Your task to perform on an android device: open app "VLC for Android" (install if not already installed) and enter user name: "Yves@outlook.com" and password: "internally" Image 0: 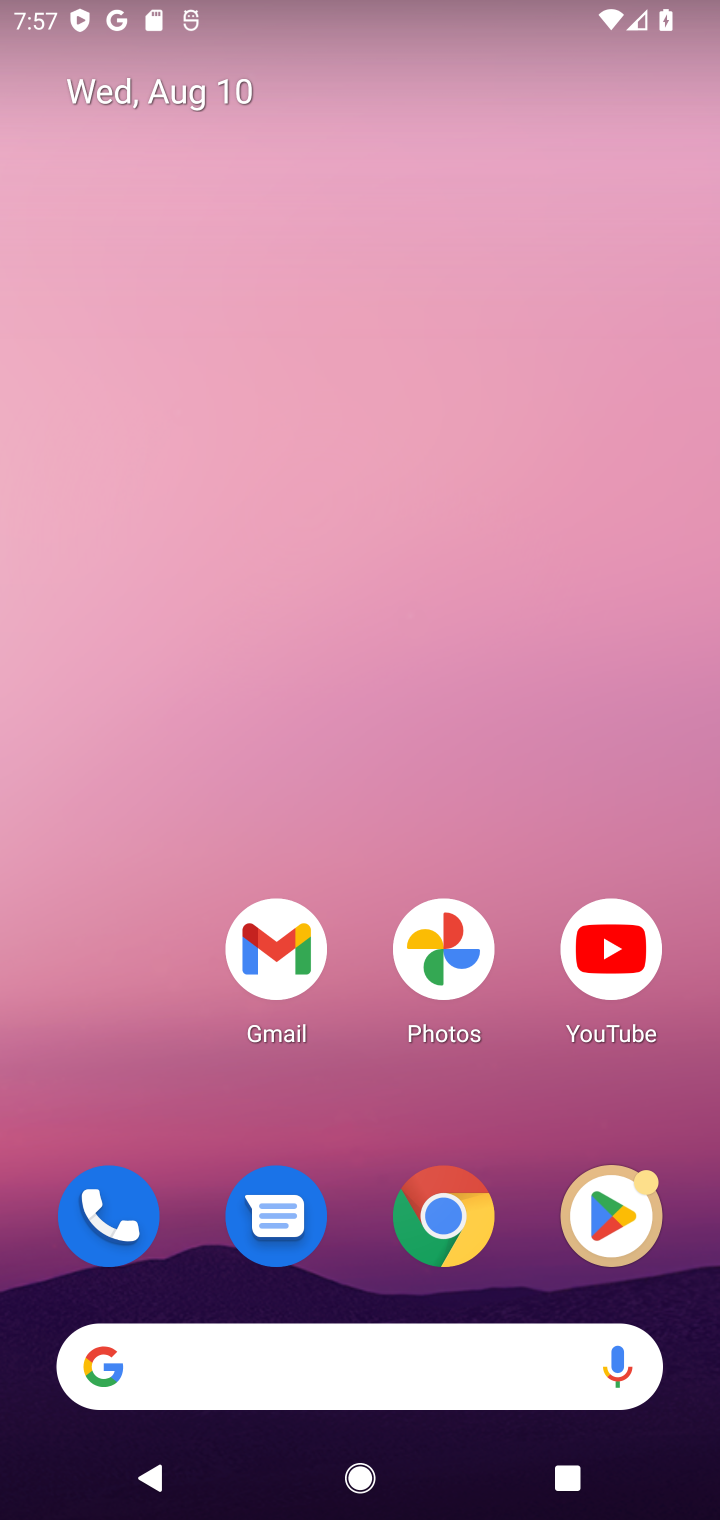
Step 0: click (598, 1182)
Your task to perform on an android device: open app "VLC for Android" (install if not already installed) and enter user name: "Yves@outlook.com" and password: "internally" Image 1: 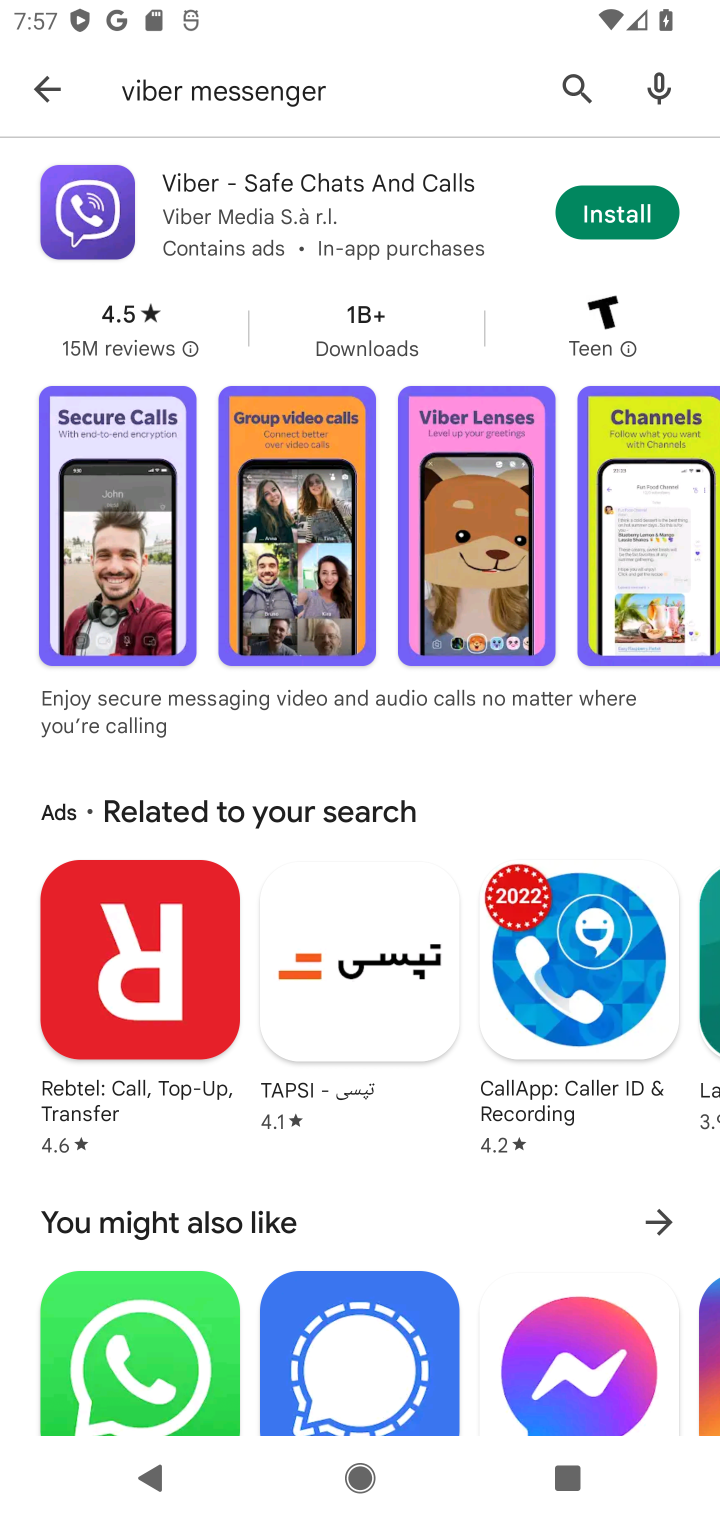
Step 1: click (577, 69)
Your task to perform on an android device: open app "VLC for Android" (install if not already installed) and enter user name: "Yves@outlook.com" and password: "internally" Image 2: 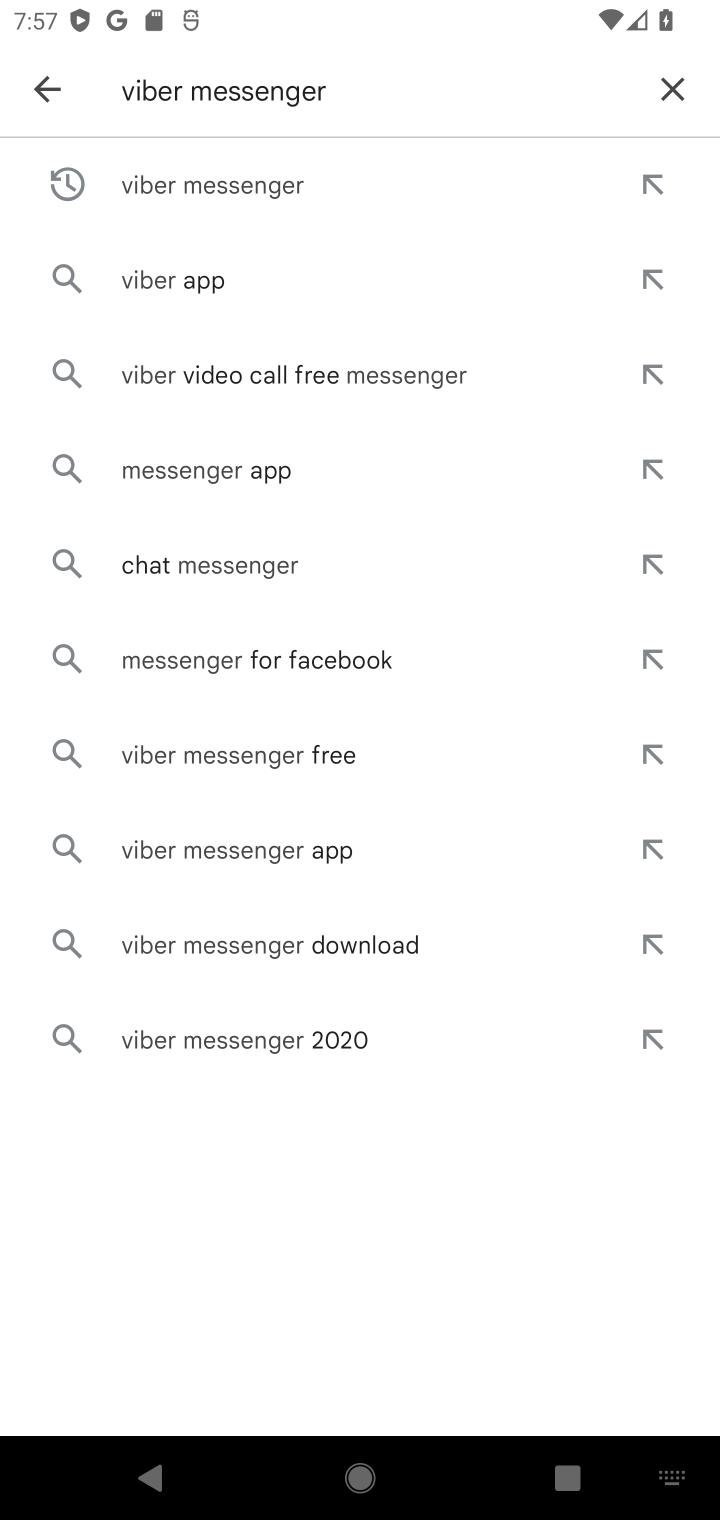
Step 2: click (673, 71)
Your task to perform on an android device: open app "VLC for Android" (install if not already installed) and enter user name: "Yves@outlook.com" and password: "internally" Image 3: 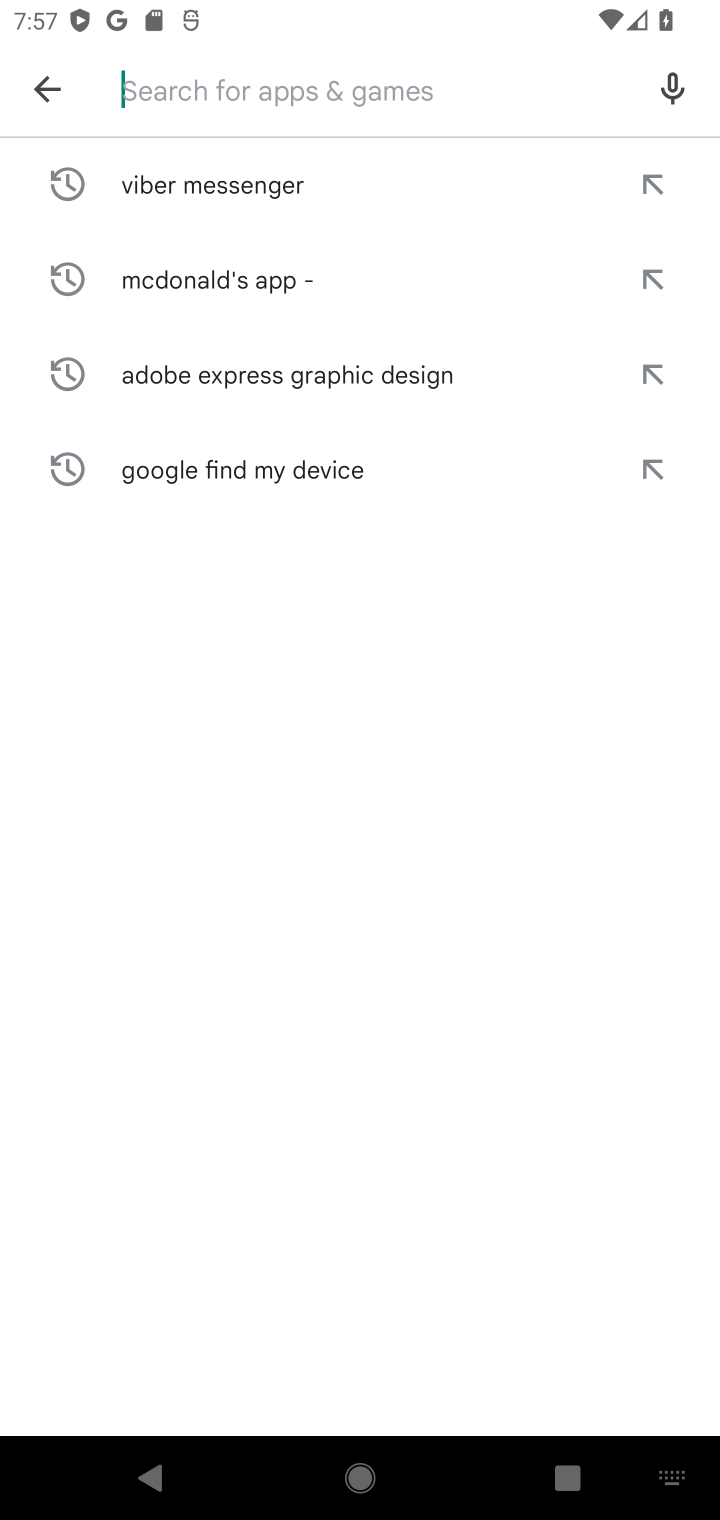
Step 3: click (297, 73)
Your task to perform on an android device: open app "VLC for Android" (install if not already installed) and enter user name: "Yves@outlook.com" and password: "internally" Image 4: 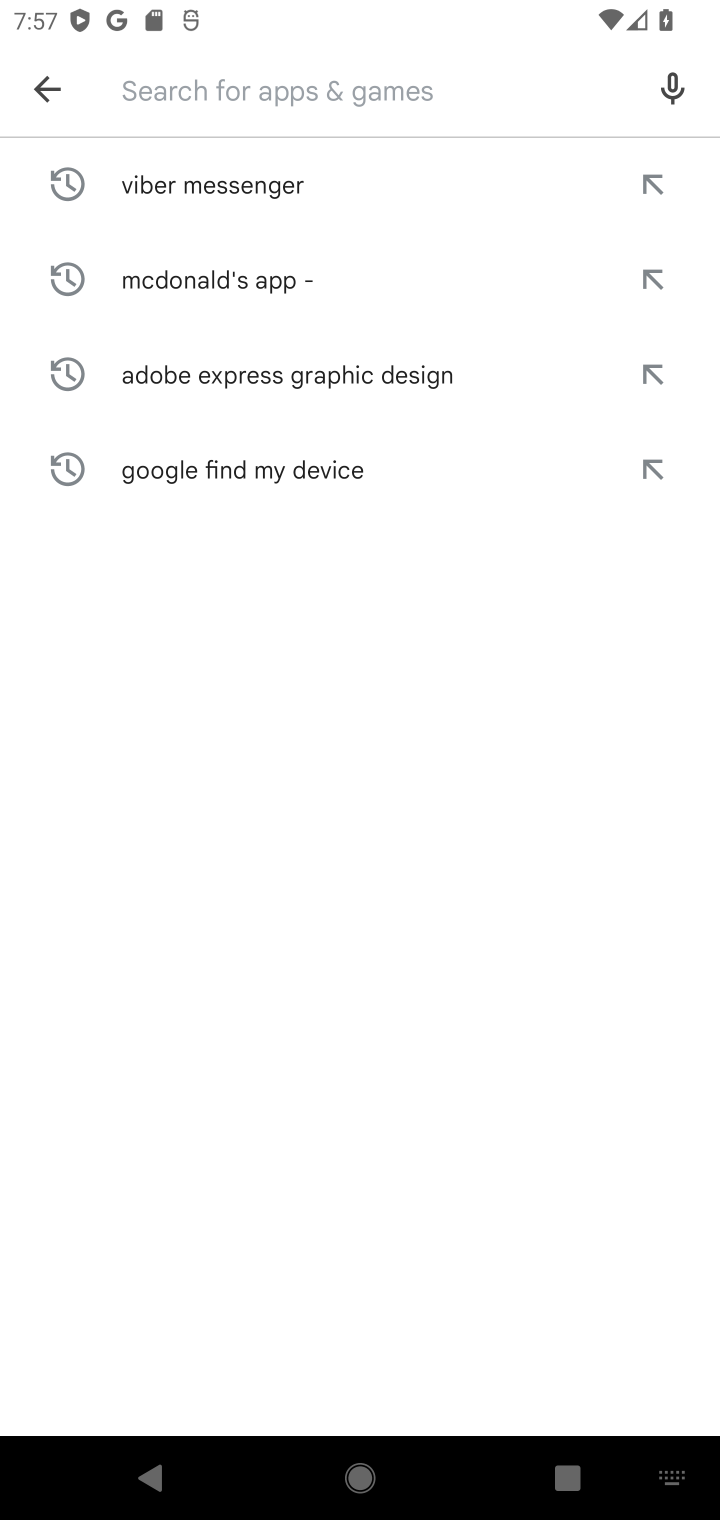
Step 4: type "vlc"
Your task to perform on an android device: open app "VLC for Android" (install if not already installed) and enter user name: "Yves@outlook.com" and password: "internally" Image 5: 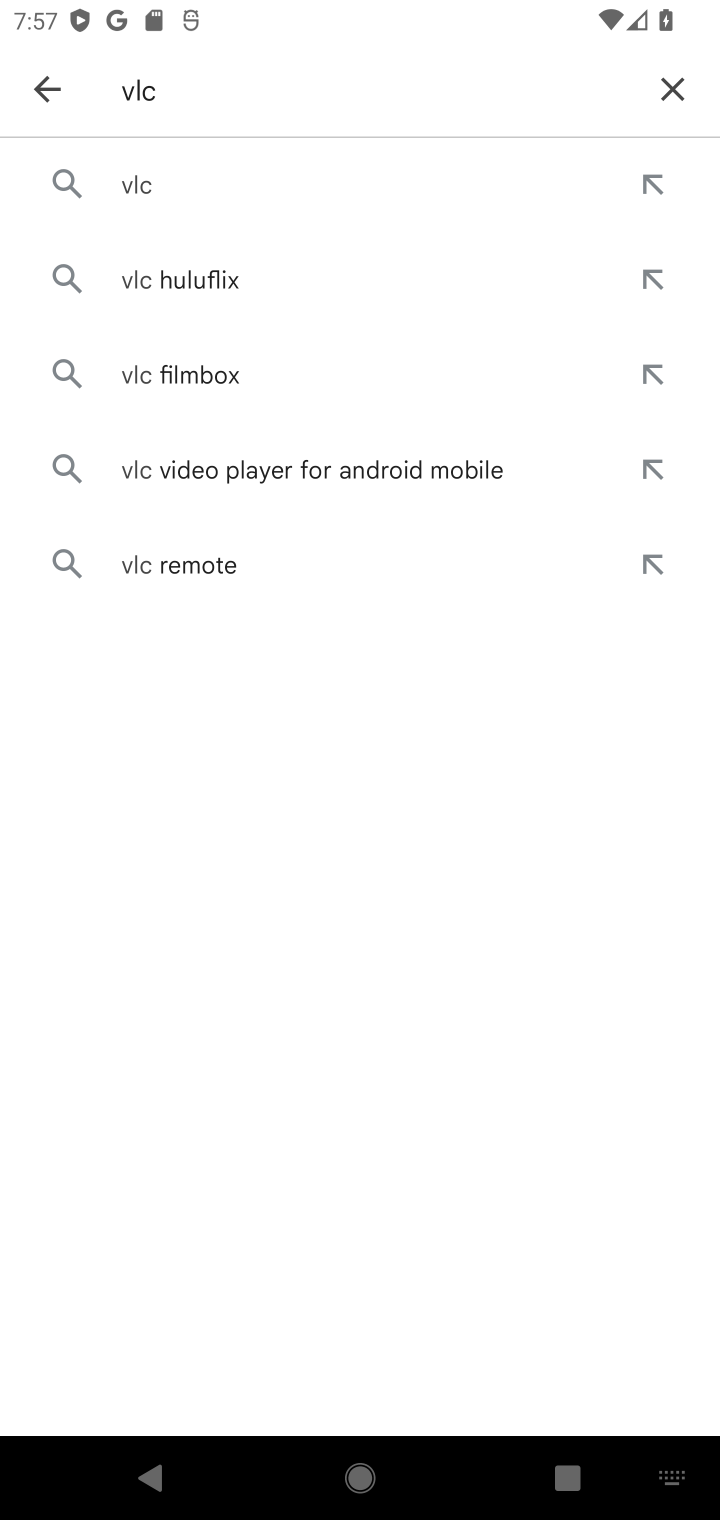
Step 5: click (169, 187)
Your task to perform on an android device: open app "VLC for Android" (install if not already installed) and enter user name: "Yves@outlook.com" and password: "internally" Image 6: 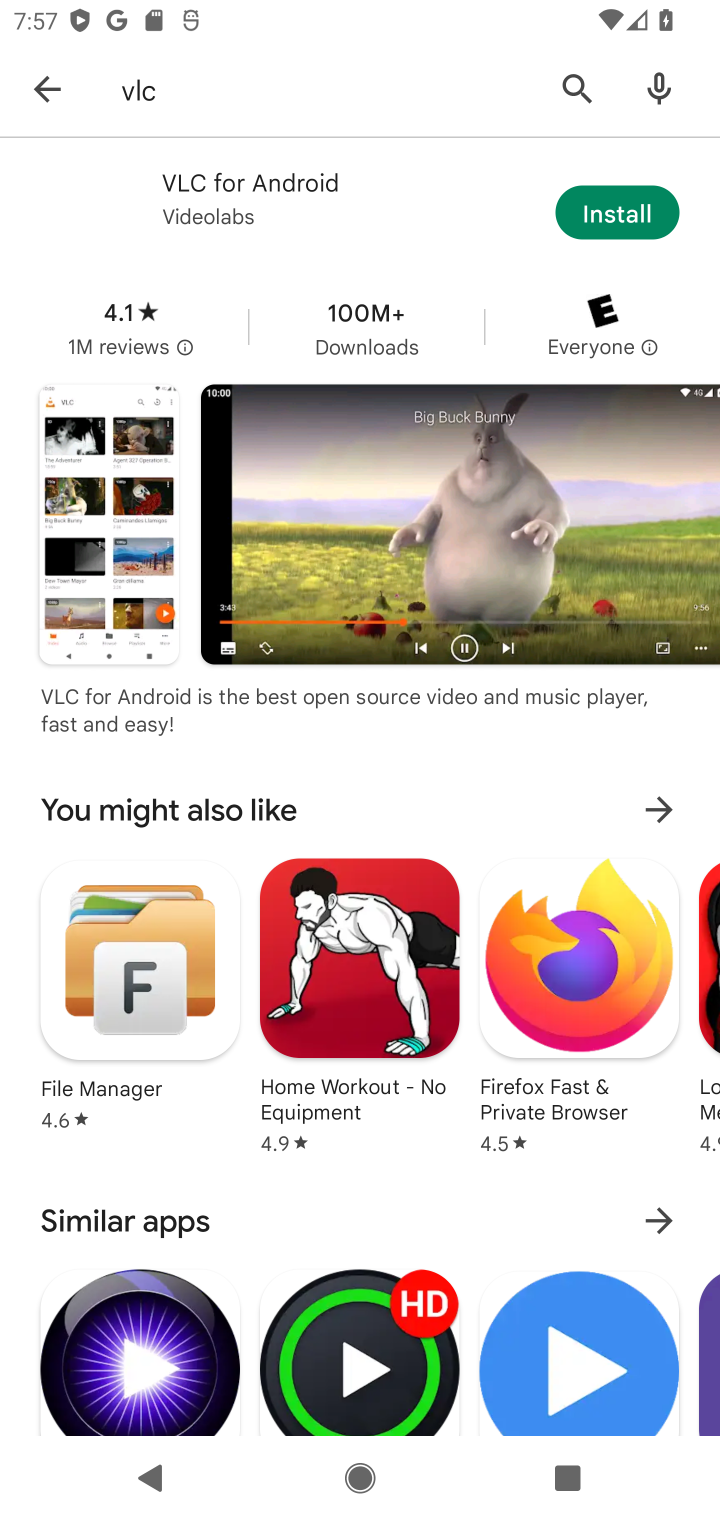
Step 6: click (608, 214)
Your task to perform on an android device: open app "VLC for Android" (install if not already installed) and enter user name: "Yves@outlook.com" and password: "internally" Image 7: 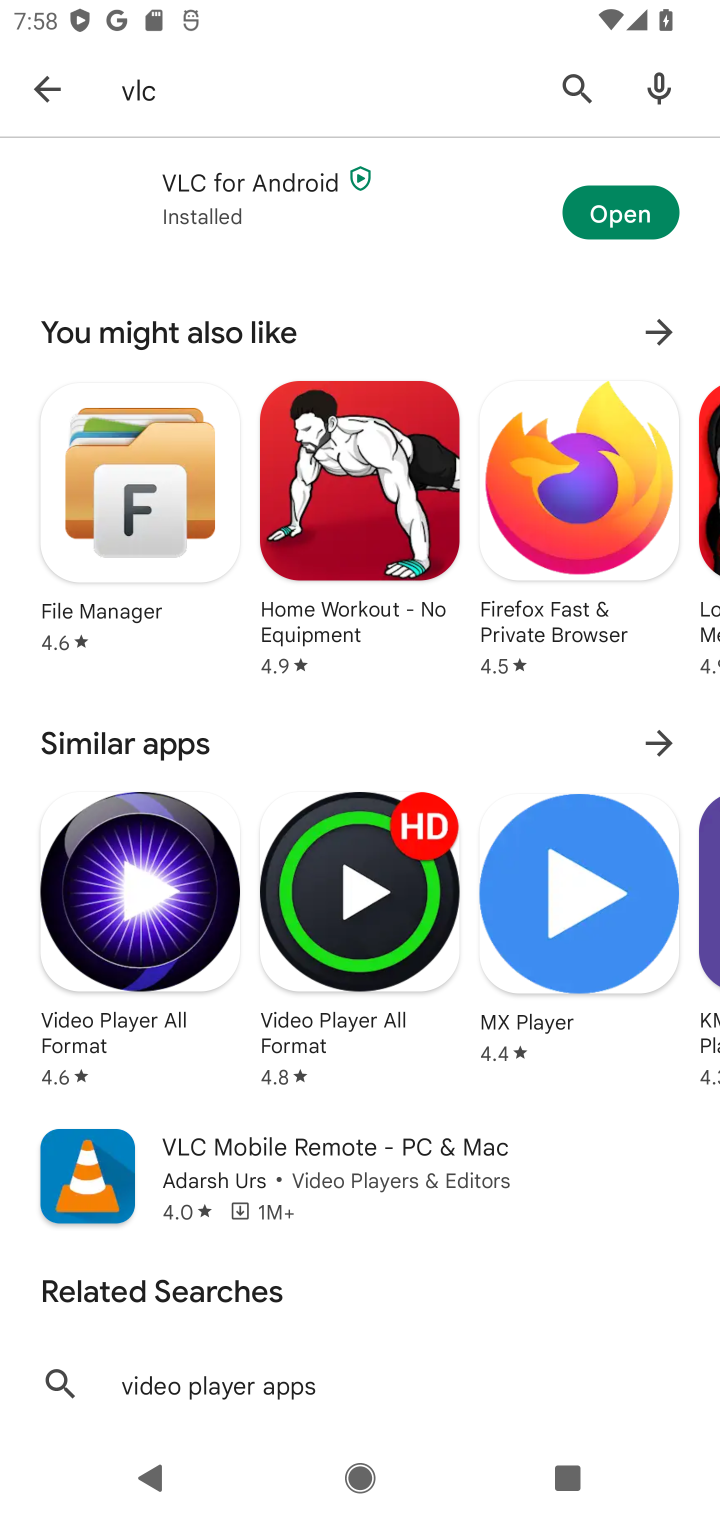
Step 7: click (615, 229)
Your task to perform on an android device: open app "VLC for Android" (install if not already installed) and enter user name: "Yves@outlook.com" and password: "internally" Image 8: 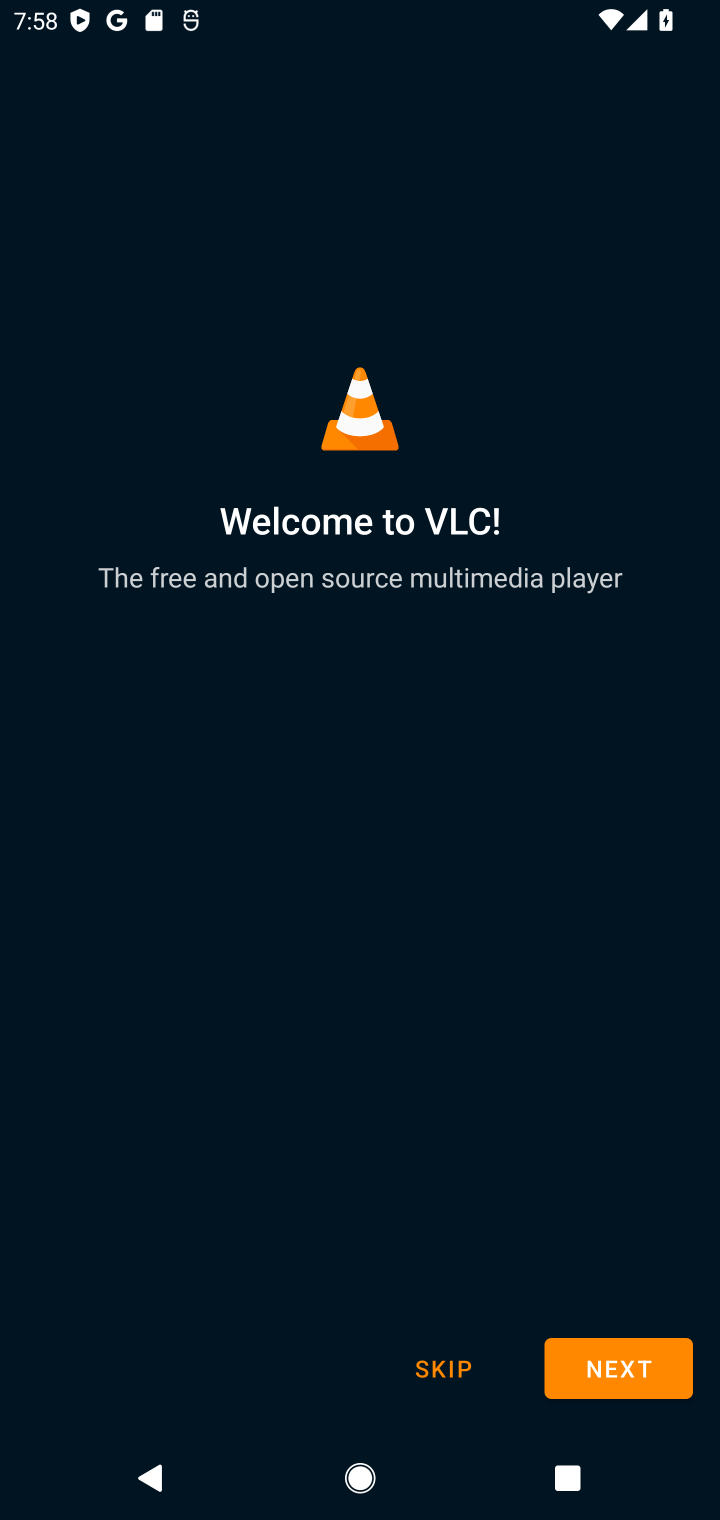
Step 8: click (618, 1381)
Your task to perform on an android device: open app "VLC for Android" (install if not already installed) and enter user name: "Yves@outlook.com" and password: "internally" Image 9: 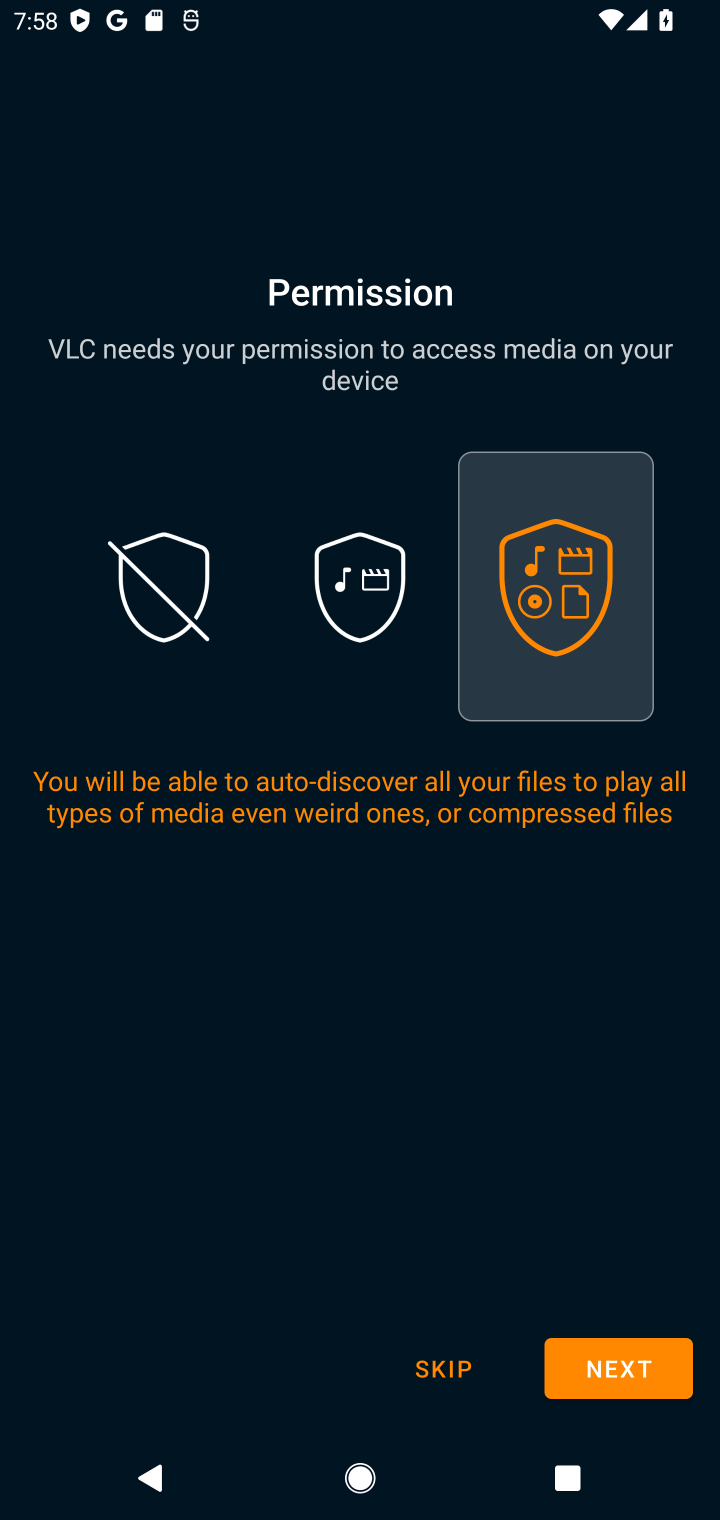
Step 9: click (477, 1367)
Your task to perform on an android device: open app "VLC for Android" (install if not already installed) and enter user name: "Yves@outlook.com" and password: "internally" Image 10: 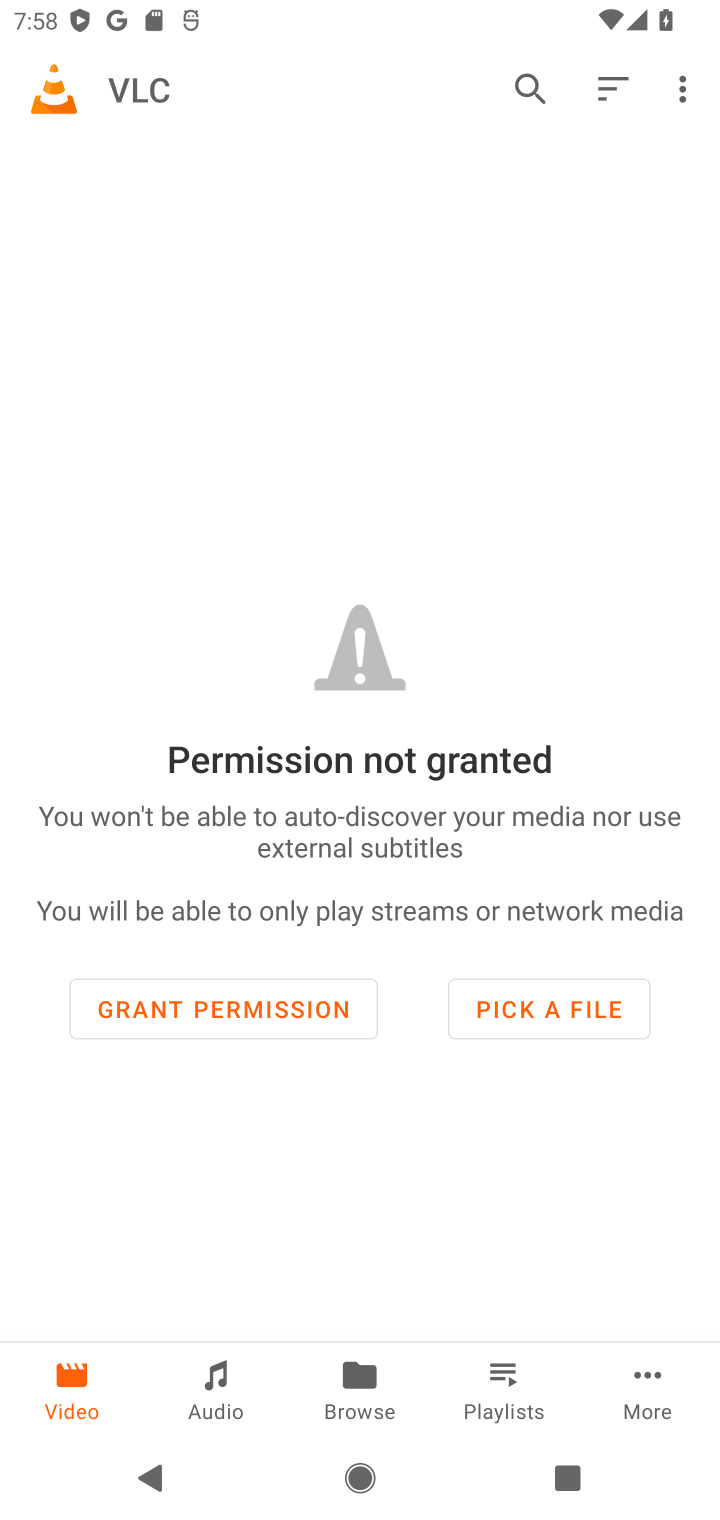
Step 10: click (667, 1375)
Your task to perform on an android device: open app "VLC for Android" (install if not already installed) and enter user name: "Yves@outlook.com" and password: "internally" Image 11: 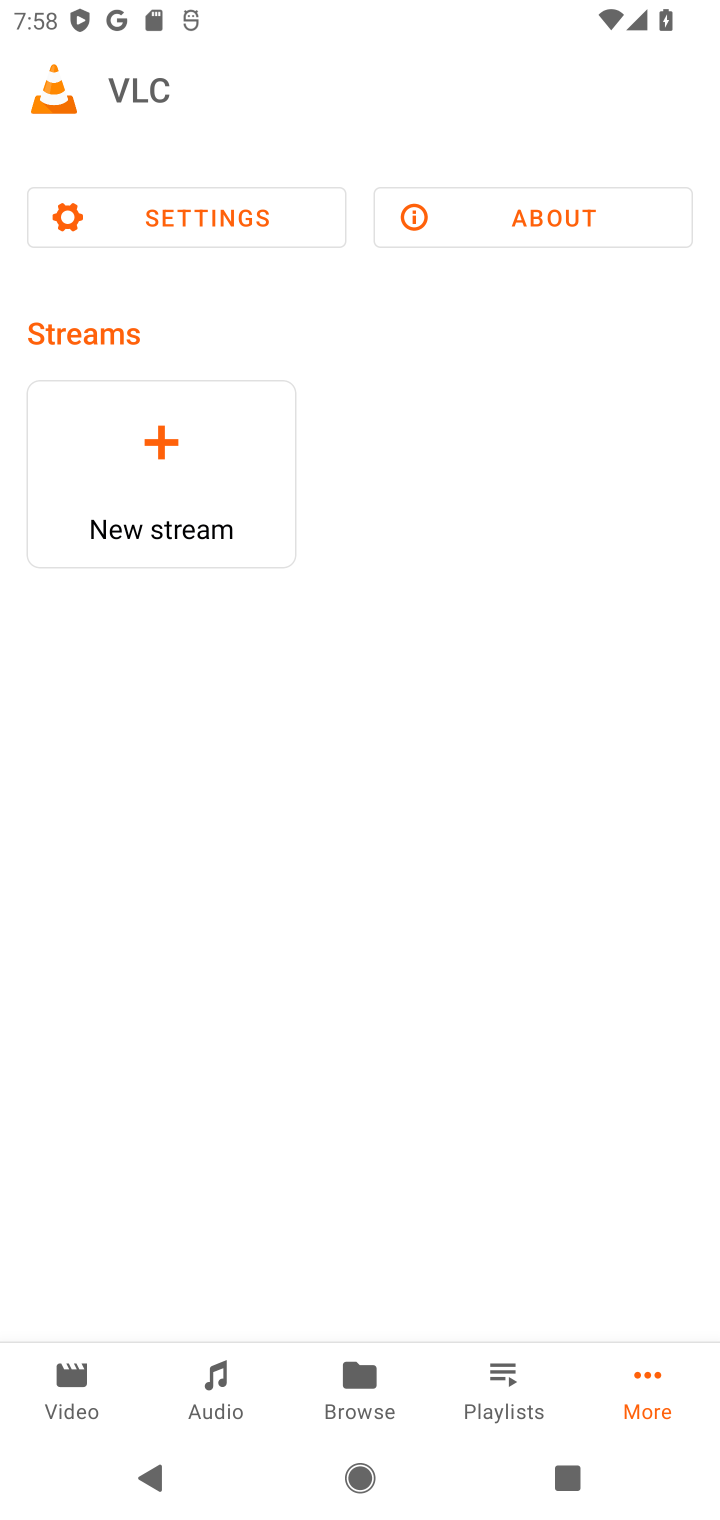
Step 11: click (65, 1384)
Your task to perform on an android device: open app "VLC for Android" (install if not already installed) and enter user name: "Yves@outlook.com" and password: "internally" Image 12: 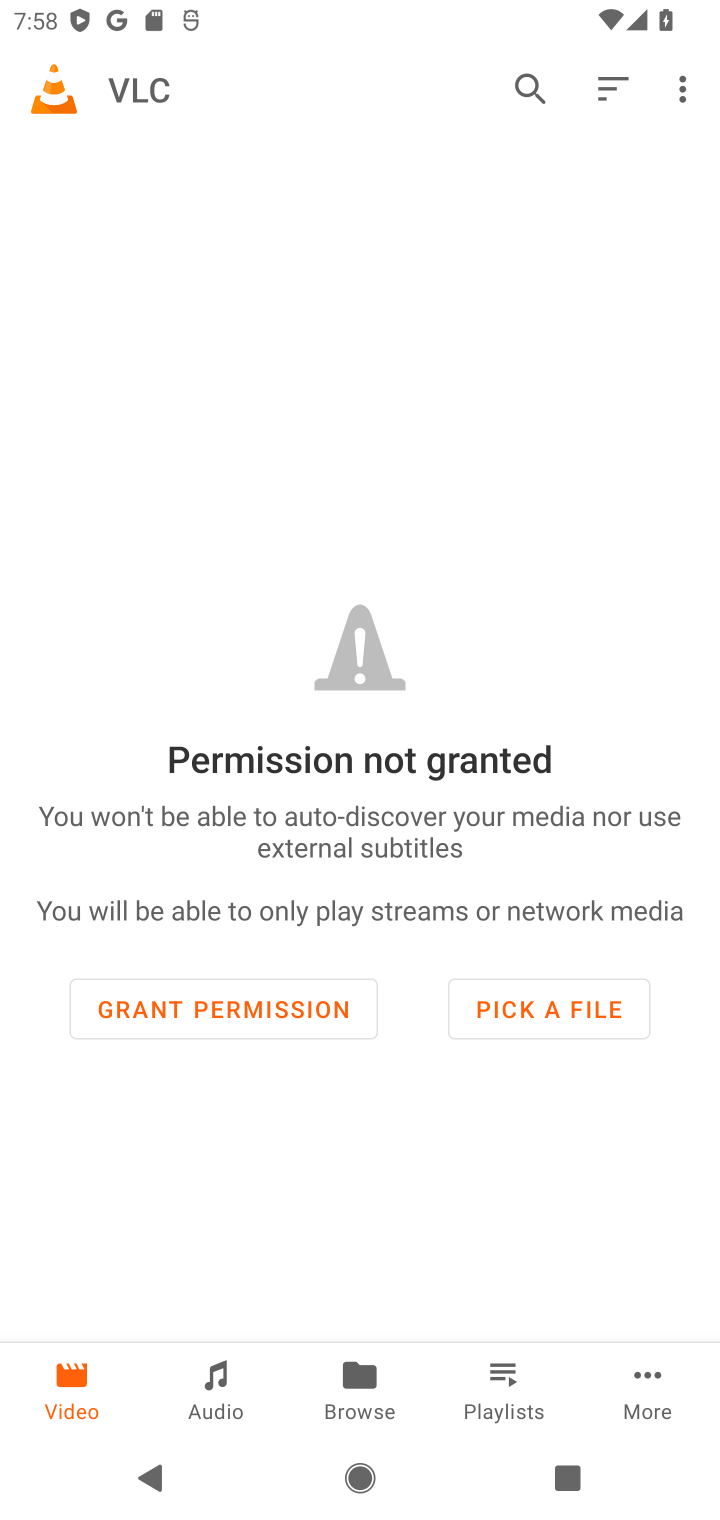
Step 12: click (65, 76)
Your task to perform on an android device: open app "VLC for Android" (install if not already installed) and enter user name: "Yves@outlook.com" and password: "internally" Image 13: 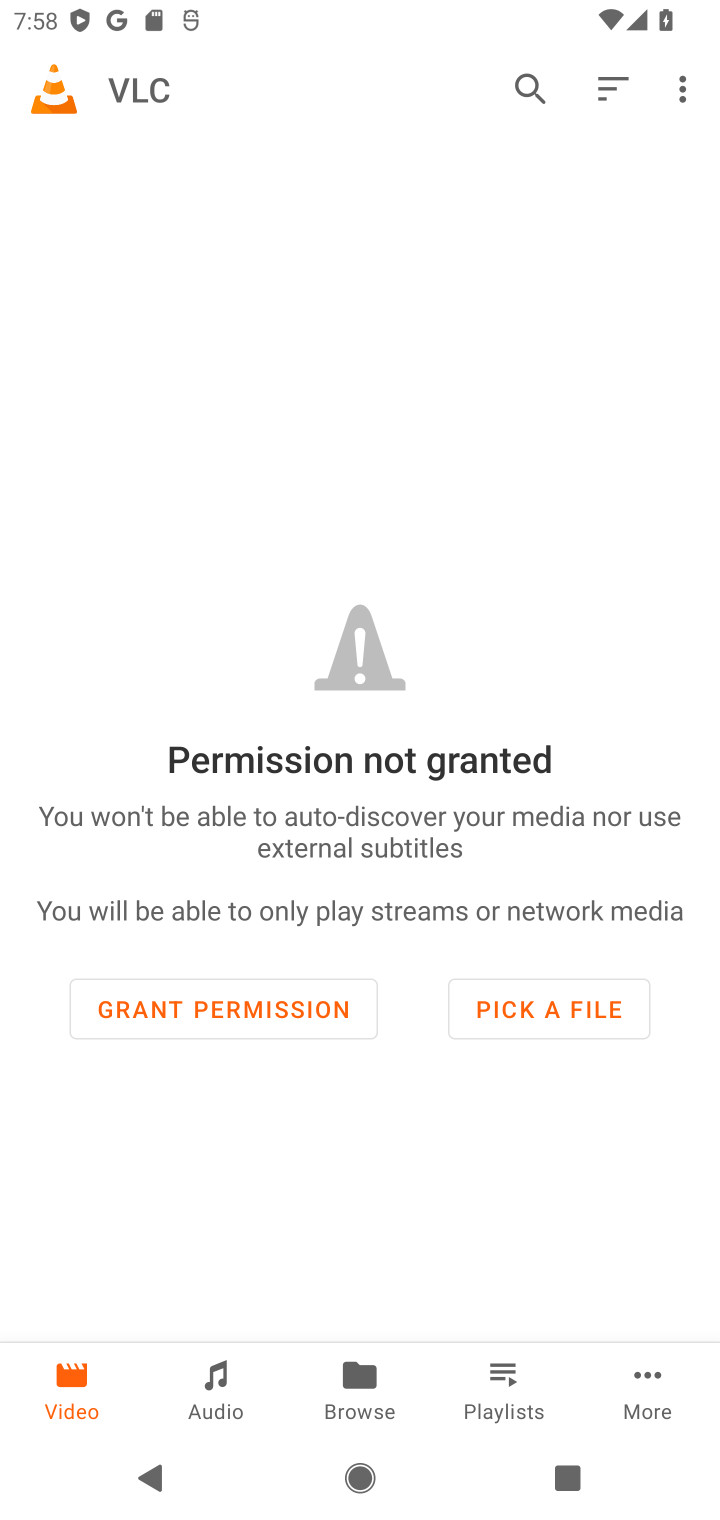
Step 13: click (682, 98)
Your task to perform on an android device: open app "VLC for Android" (install if not already installed) and enter user name: "Yves@outlook.com" and password: "internally" Image 14: 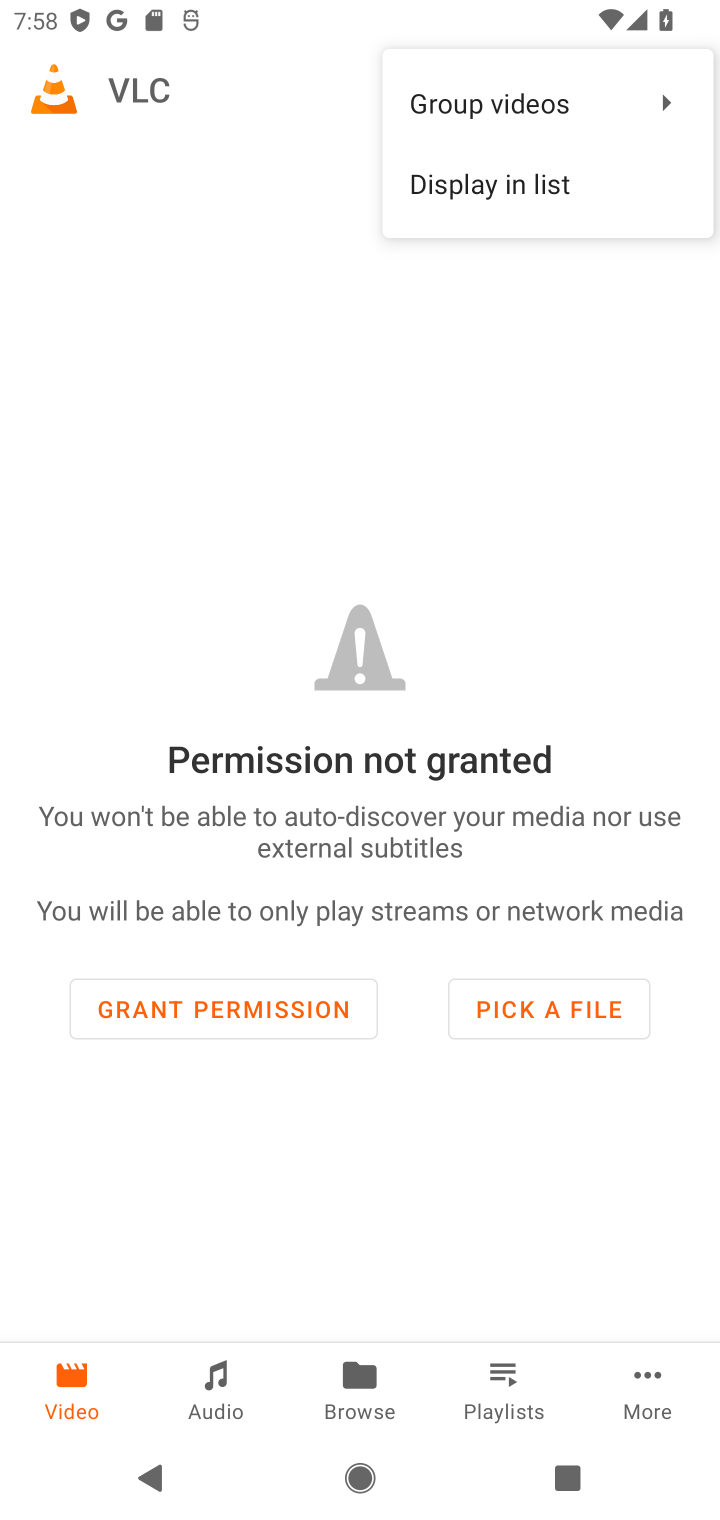
Step 14: click (269, 241)
Your task to perform on an android device: open app "VLC for Android" (install if not already installed) and enter user name: "Yves@outlook.com" and password: "internally" Image 15: 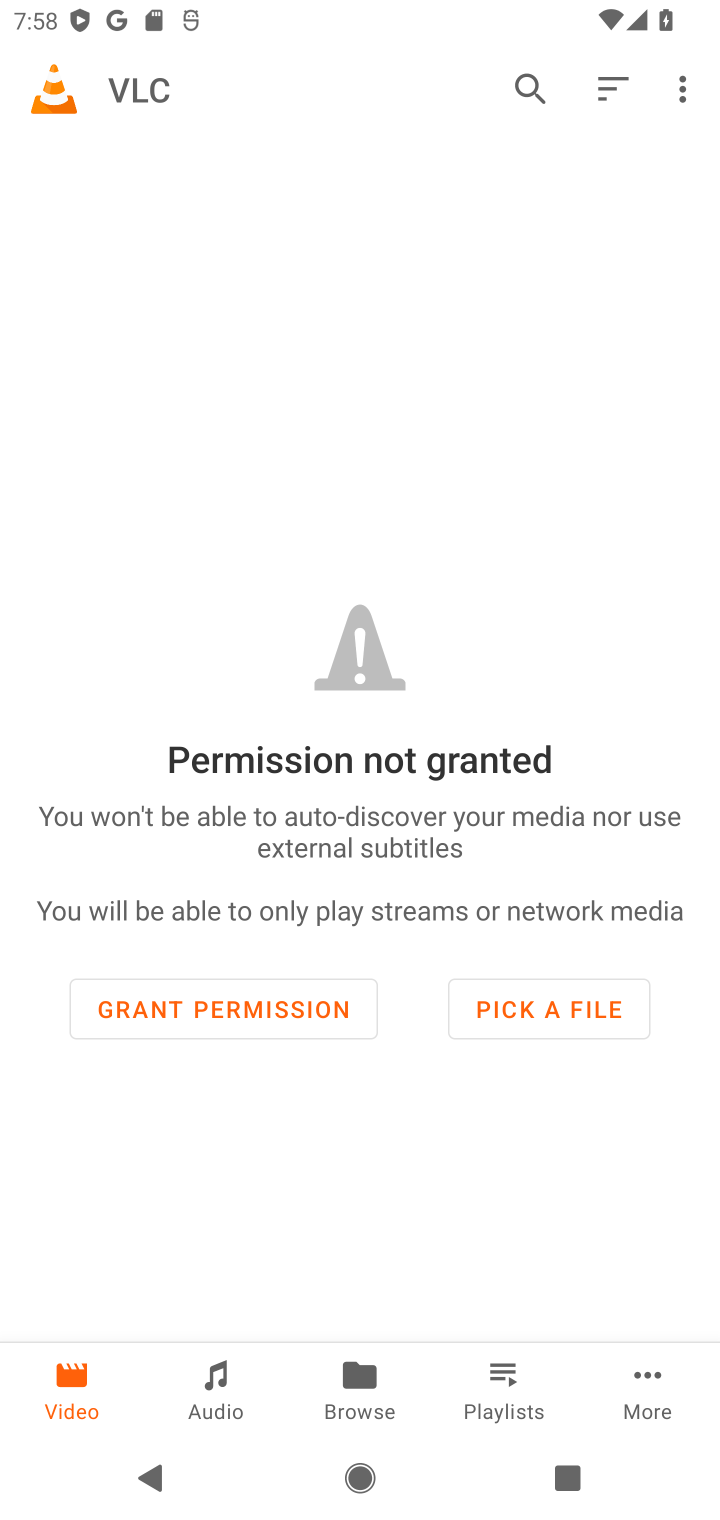
Step 15: task complete